Your task to perform on an android device: Go to ESPN.com Image 0: 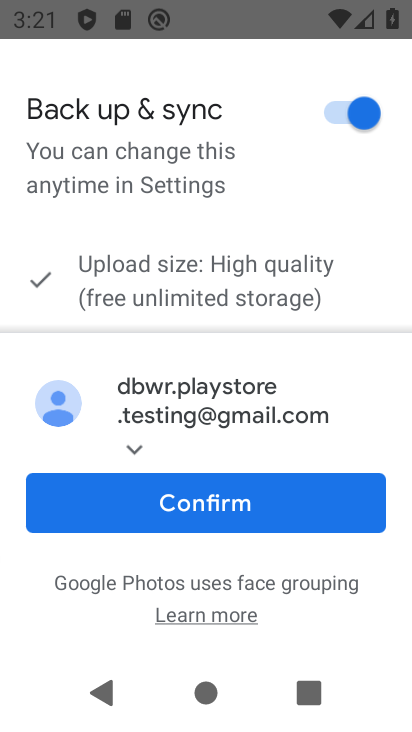
Step 0: press home button
Your task to perform on an android device: Go to ESPN.com Image 1: 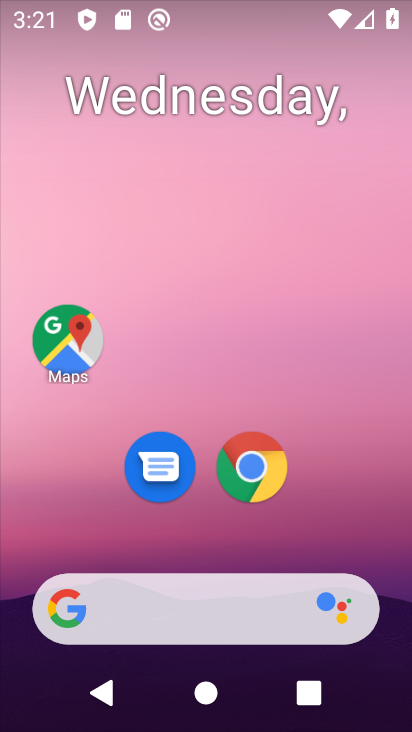
Step 1: click (237, 468)
Your task to perform on an android device: Go to ESPN.com Image 2: 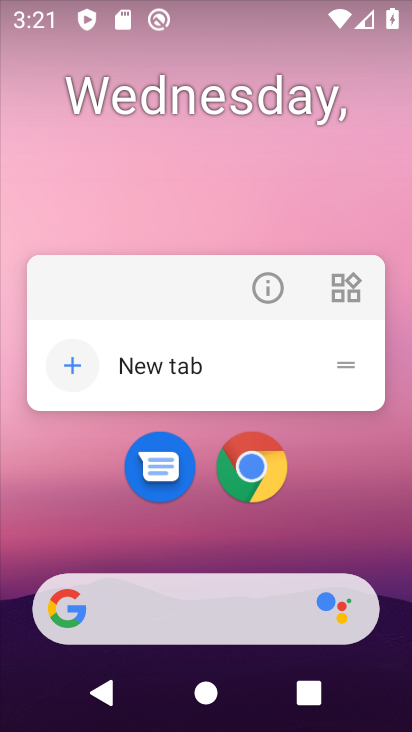
Step 2: click (273, 480)
Your task to perform on an android device: Go to ESPN.com Image 3: 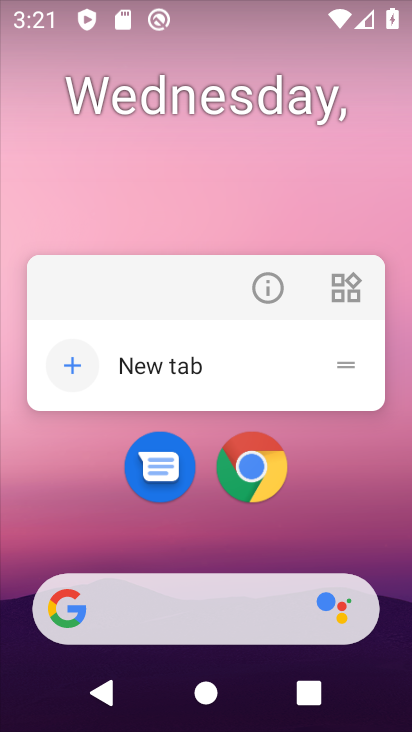
Step 3: click (271, 480)
Your task to perform on an android device: Go to ESPN.com Image 4: 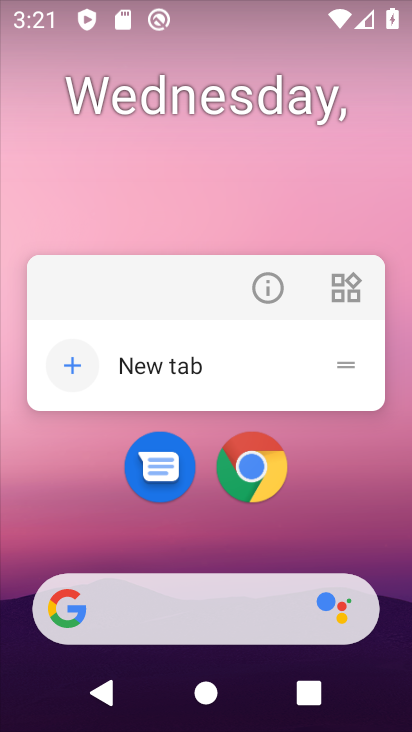
Step 4: click (256, 478)
Your task to perform on an android device: Go to ESPN.com Image 5: 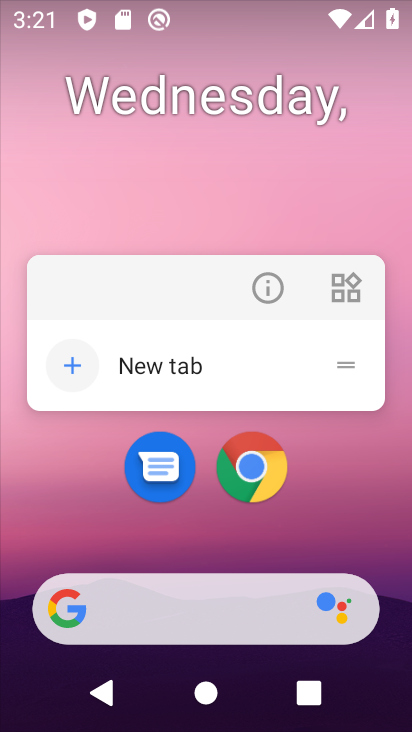
Step 5: click (258, 476)
Your task to perform on an android device: Go to ESPN.com Image 6: 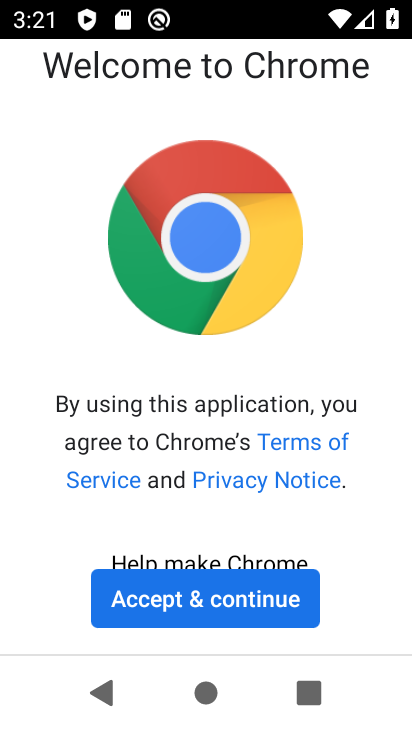
Step 6: click (257, 610)
Your task to perform on an android device: Go to ESPN.com Image 7: 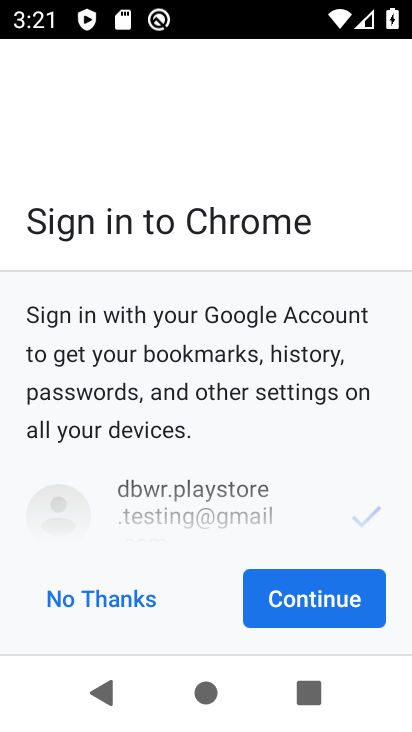
Step 7: click (324, 613)
Your task to perform on an android device: Go to ESPN.com Image 8: 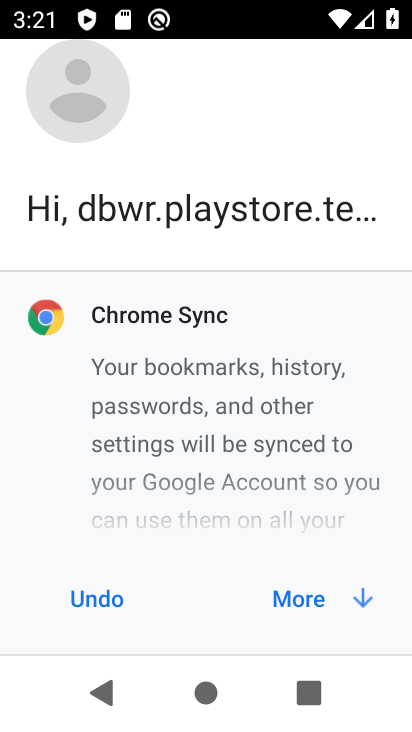
Step 8: click (324, 613)
Your task to perform on an android device: Go to ESPN.com Image 9: 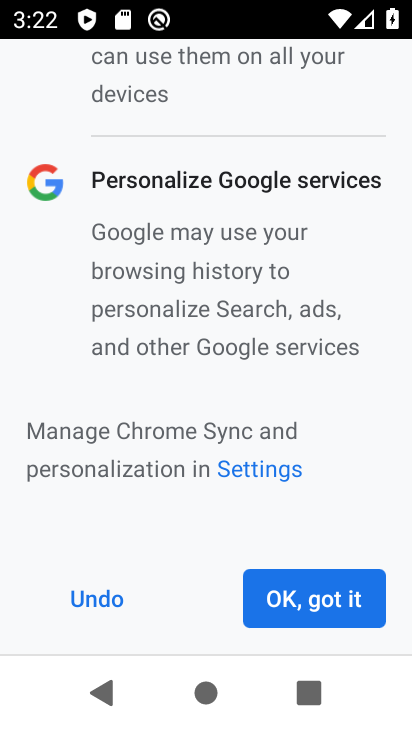
Step 9: click (324, 613)
Your task to perform on an android device: Go to ESPN.com Image 10: 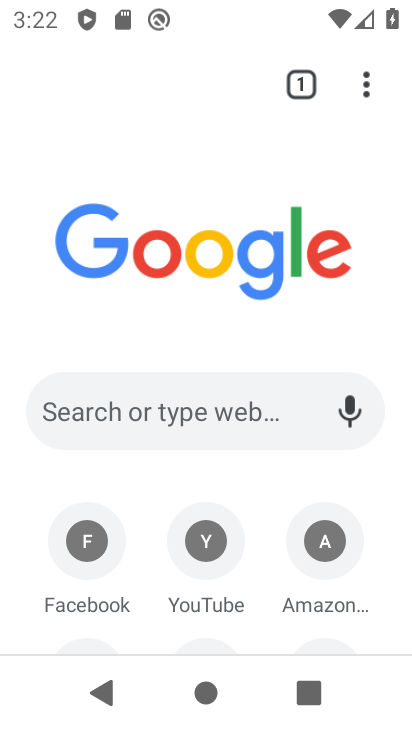
Step 10: drag from (252, 594) to (322, 411)
Your task to perform on an android device: Go to ESPN.com Image 11: 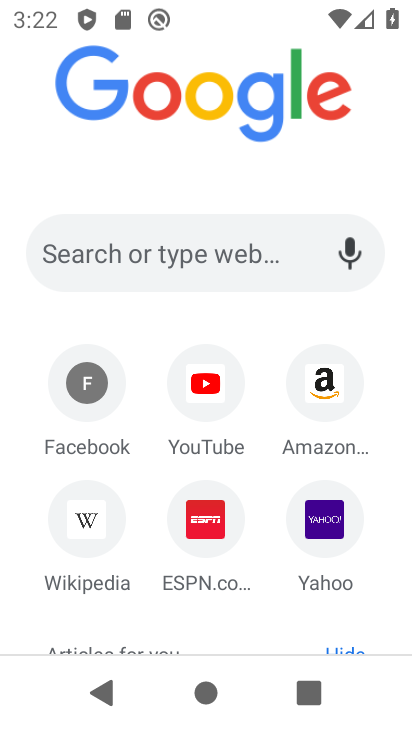
Step 11: click (212, 533)
Your task to perform on an android device: Go to ESPN.com Image 12: 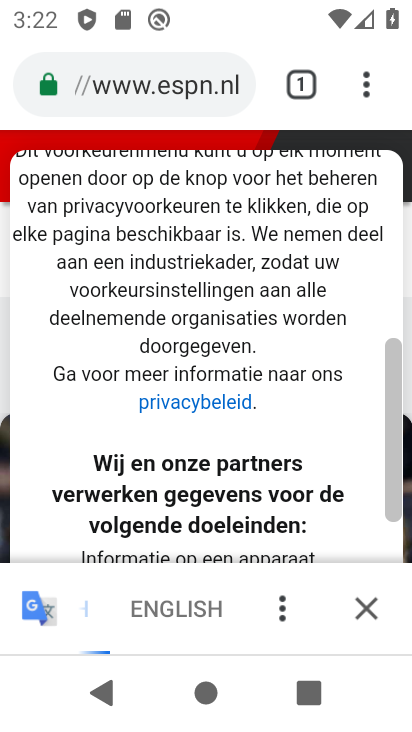
Step 12: task complete